Your task to perform on an android device: Open network settings Image 0: 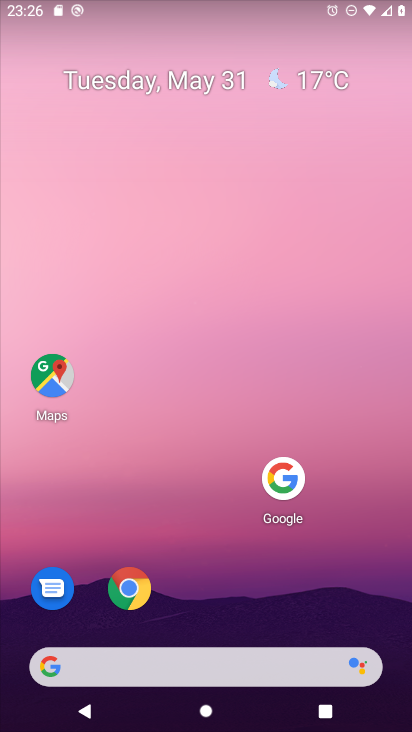
Step 0: drag from (160, 666) to (199, 61)
Your task to perform on an android device: Open network settings Image 1: 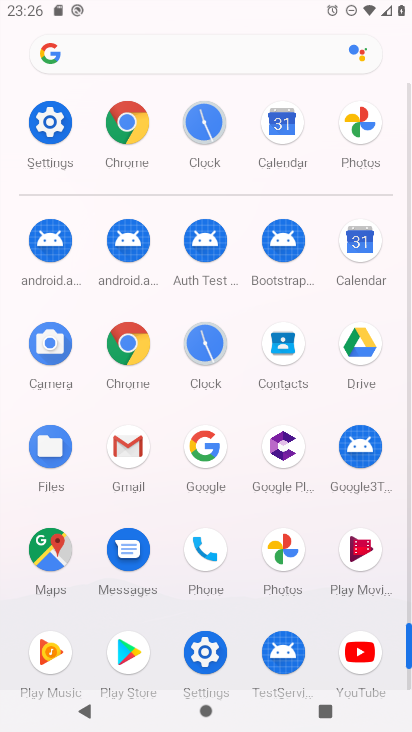
Step 1: click (57, 123)
Your task to perform on an android device: Open network settings Image 2: 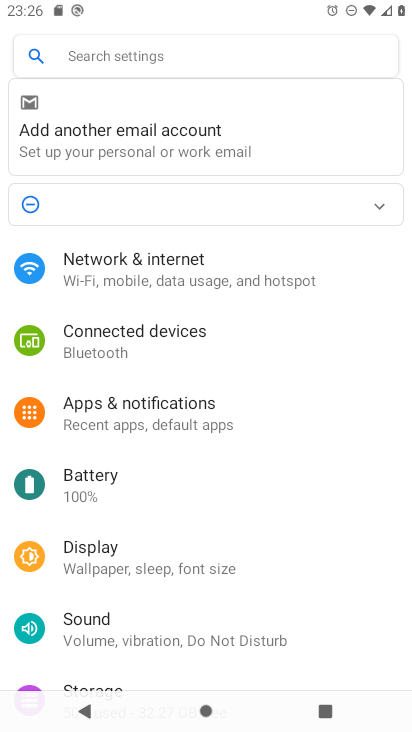
Step 2: click (147, 271)
Your task to perform on an android device: Open network settings Image 3: 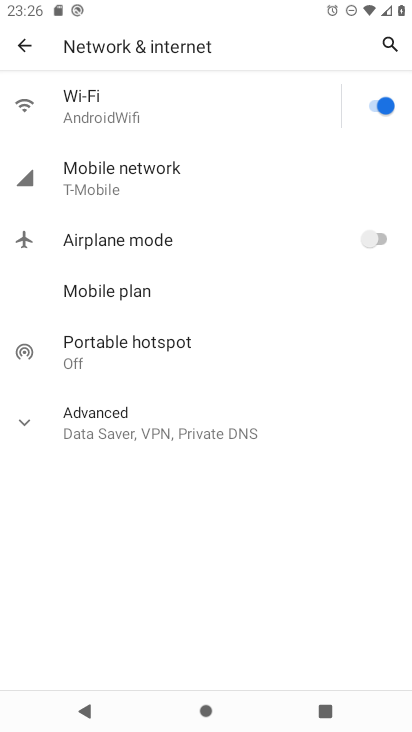
Step 3: task complete